Your task to perform on an android device: Show me the alarms in the clock app Image 0: 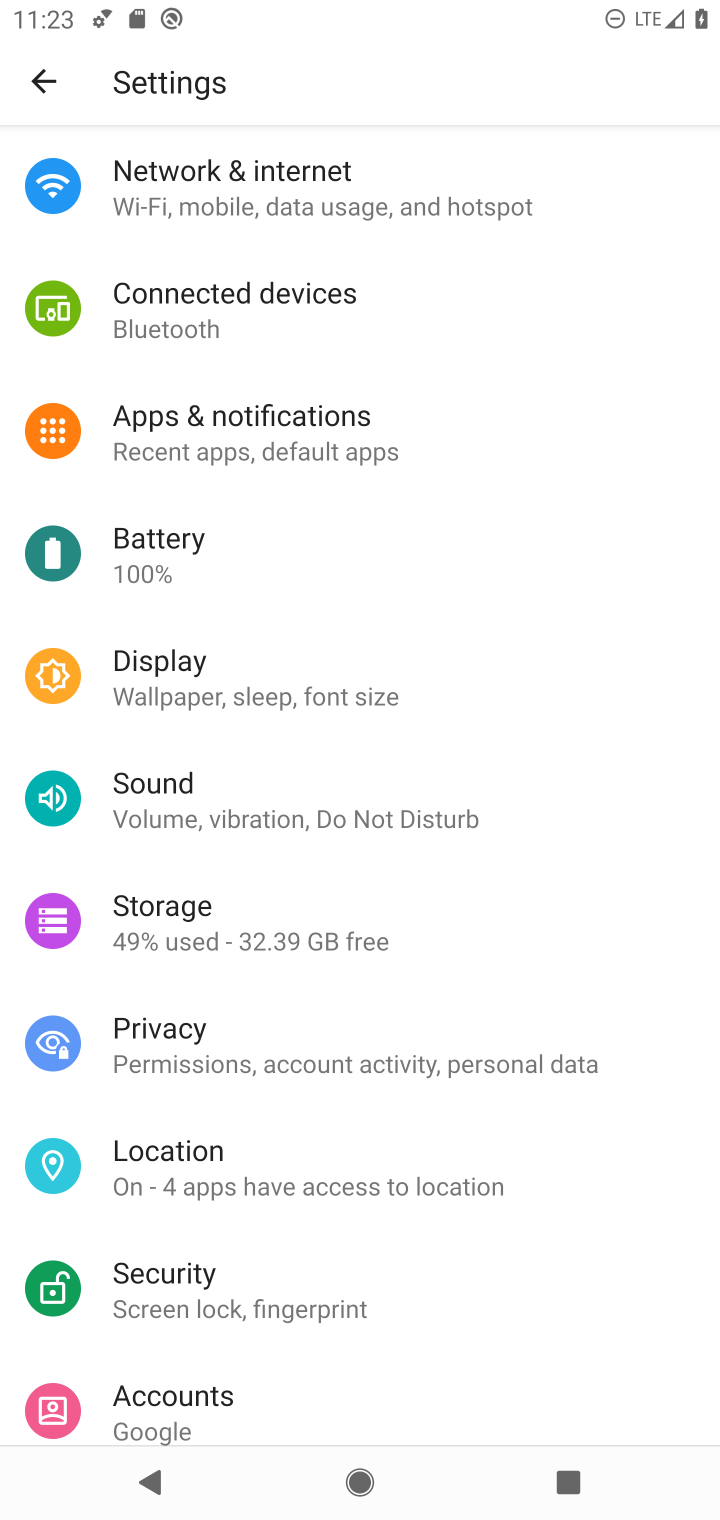
Step 0: press home button
Your task to perform on an android device: Show me the alarms in the clock app Image 1: 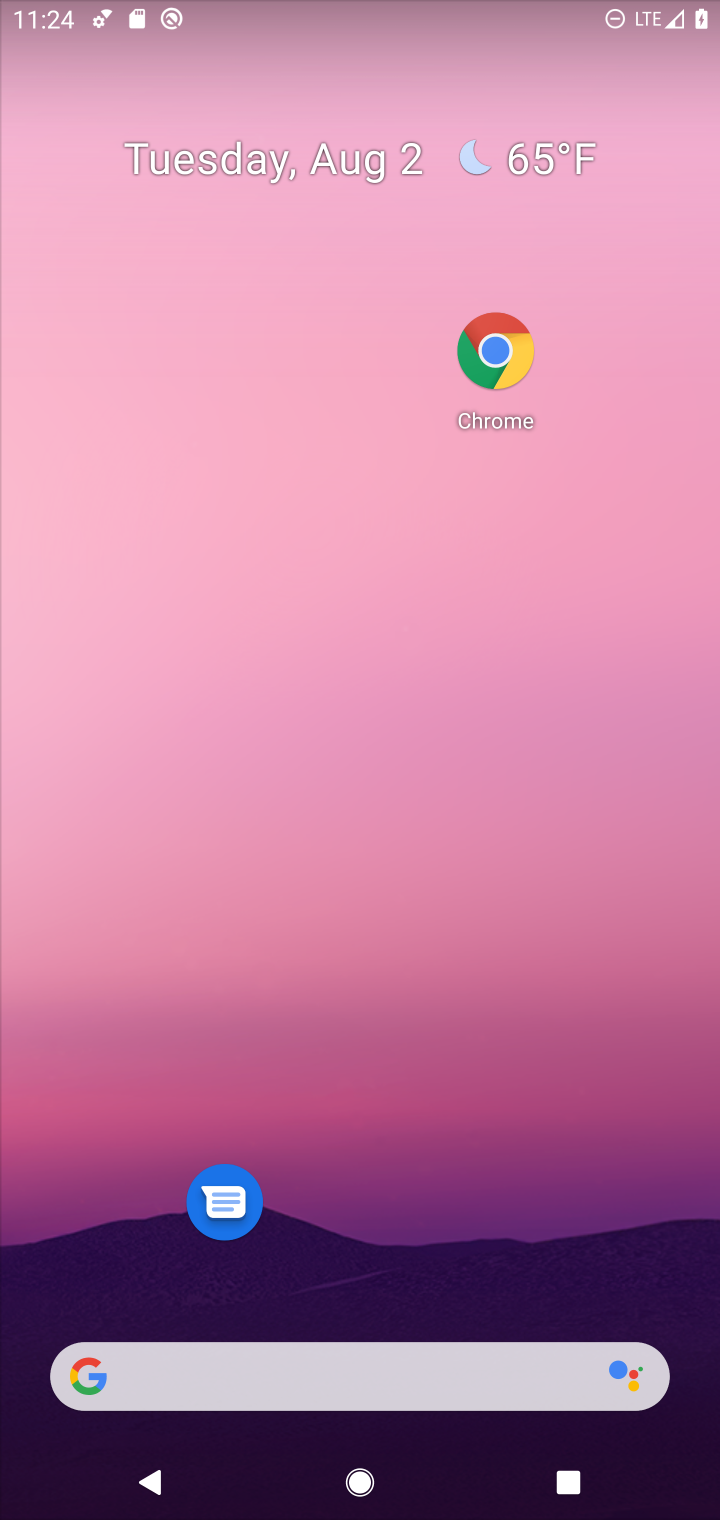
Step 1: drag from (382, 1258) to (401, 78)
Your task to perform on an android device: Show me the alarms in the clock app Image 2: 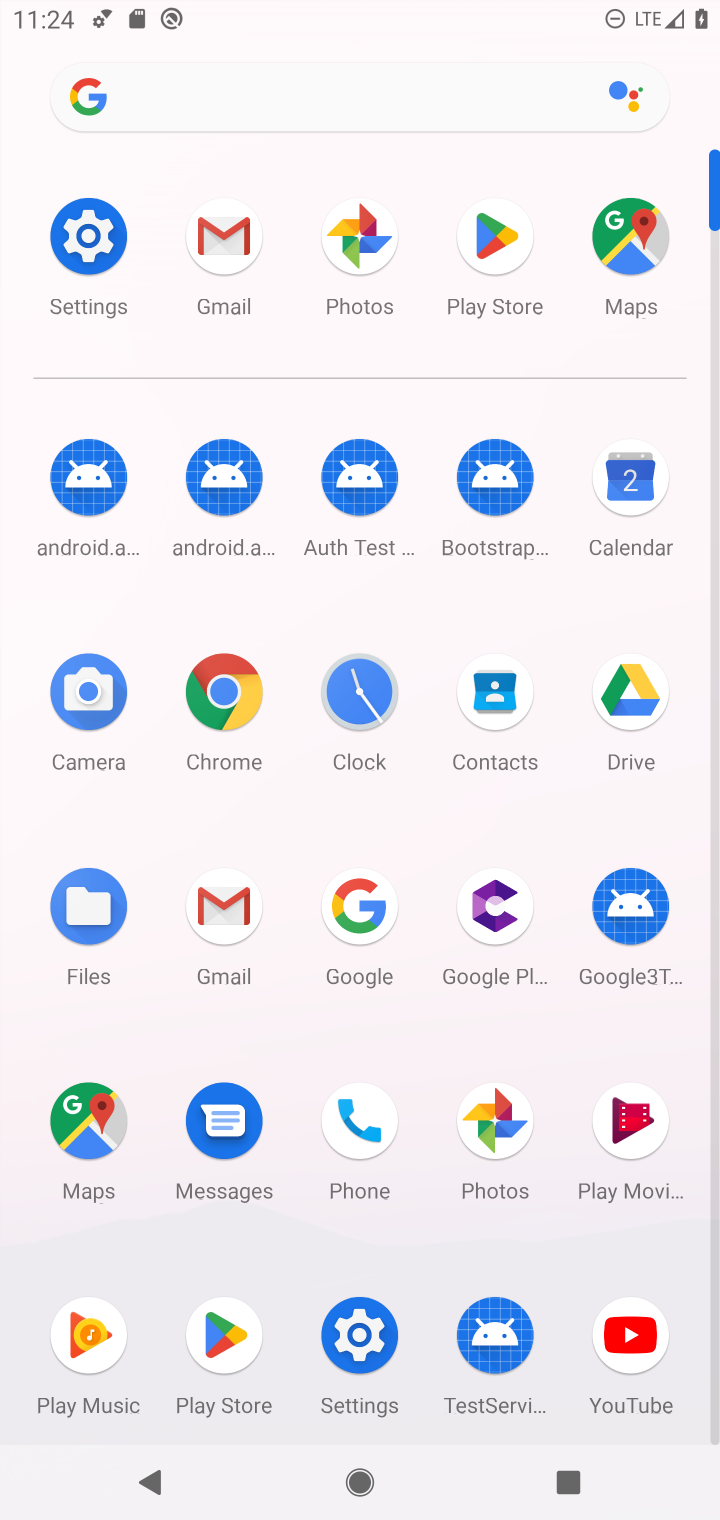
Step 2: click (358, 693)
Your task to perform on an android device: Show me the alarms in the clock app Image 3: 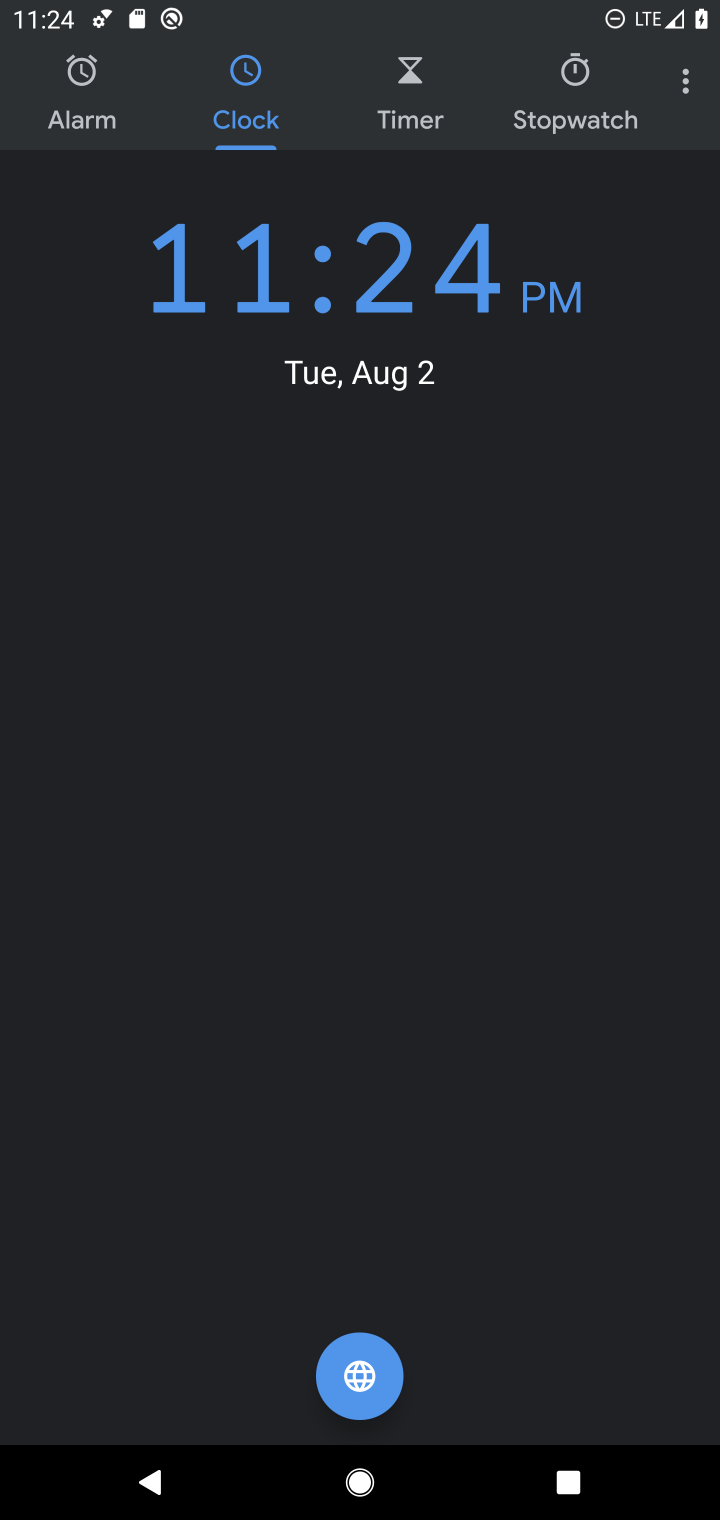
Step 3: click (687, 96)
Your task to perform on an android device: Show me the alarms in the clock app Image 4: 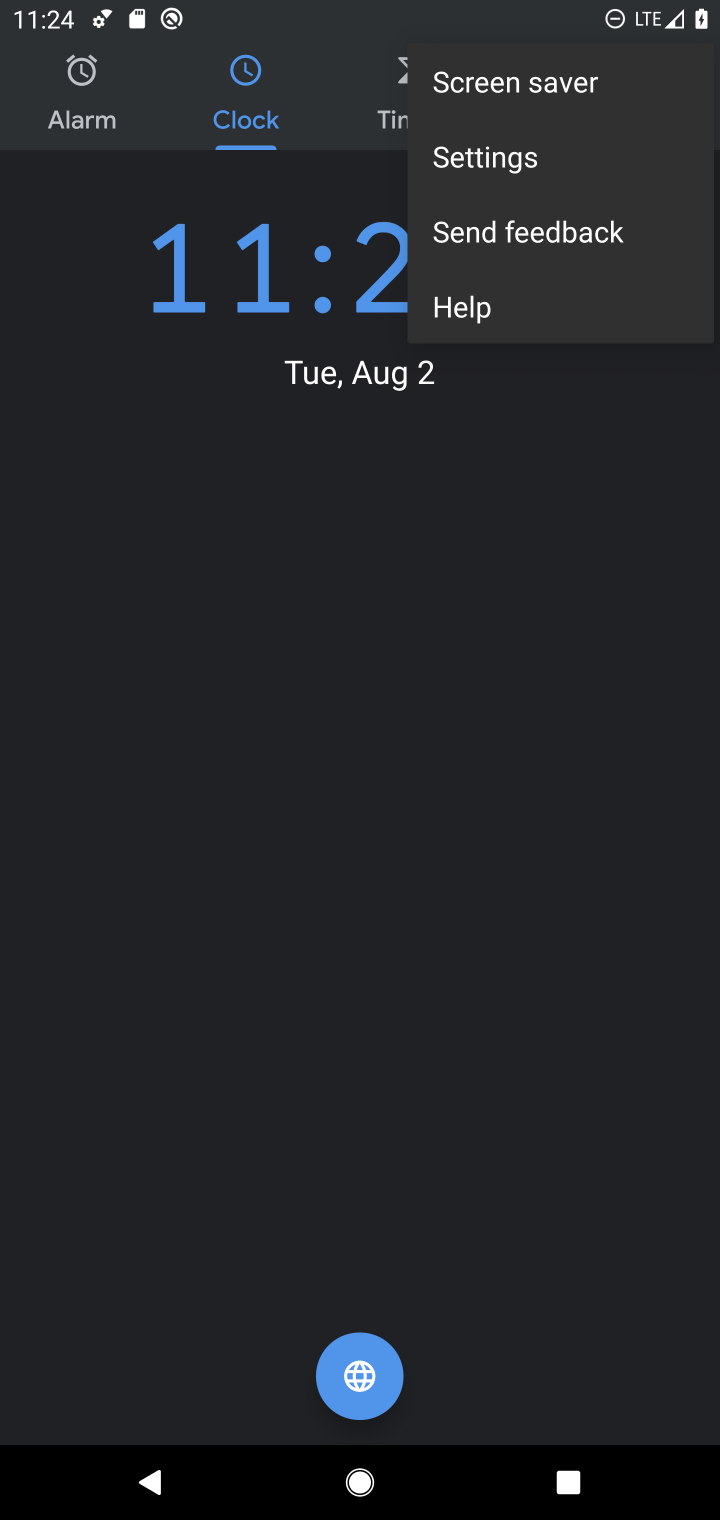
Step 4: click (510, 169)
Your task to perform on an android device: Show me the alarms in the clock app Image 5: 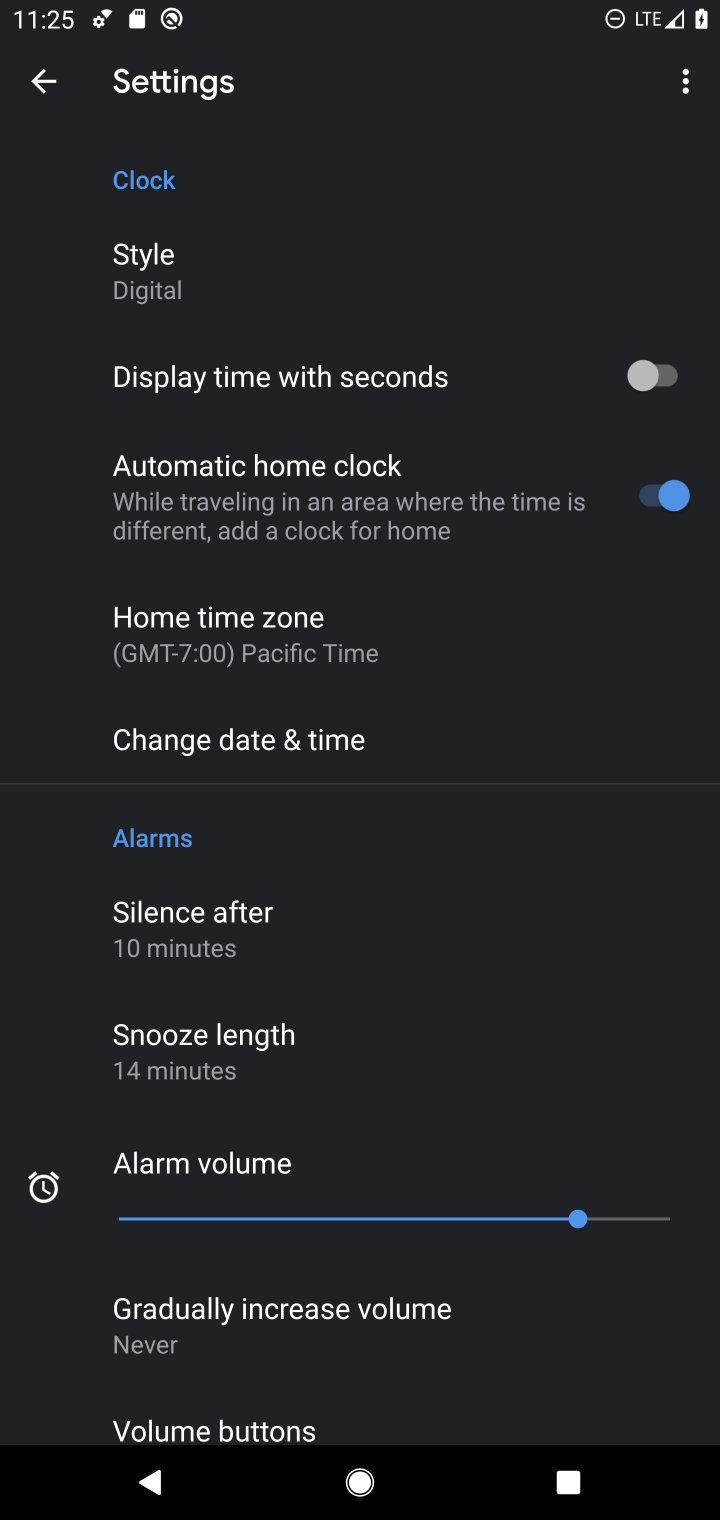
Step 5: click (52, 98)
Your task to perform on an android device: Show me the alarms in the clock app Image 6: 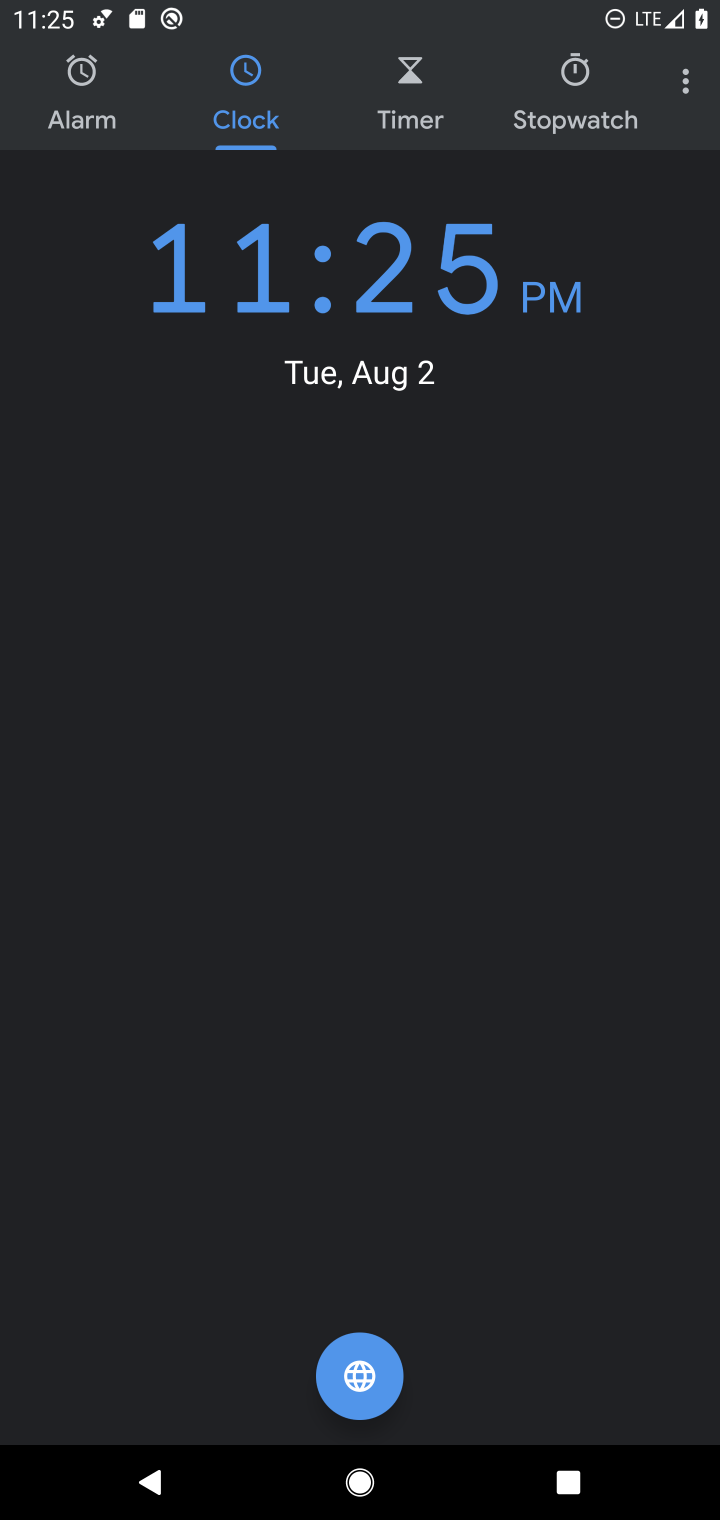
Step 6: click (72, 108)
Your task to perform on an android device: Show me the alarms in the clock app Image 7: 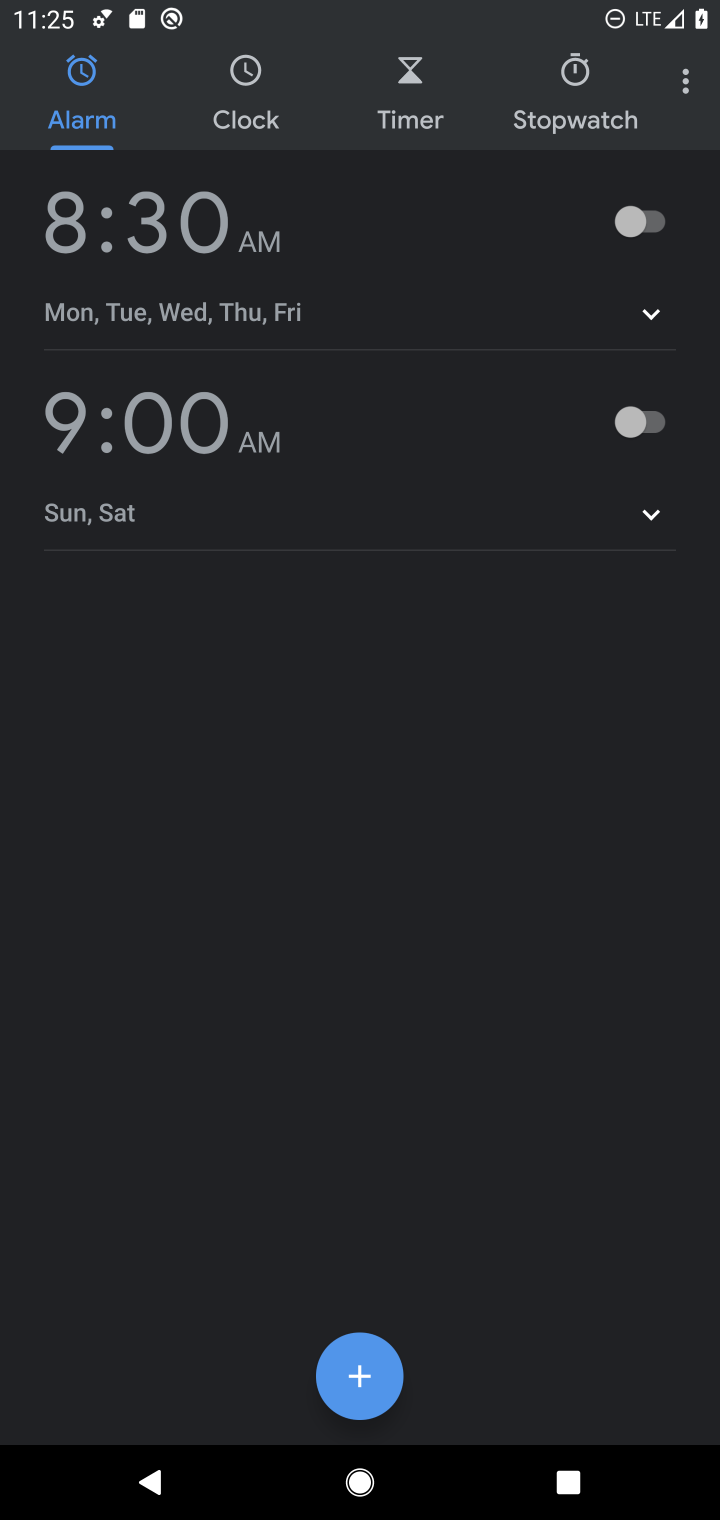
Step 7: task complete